Your task to perform on an android device: install app "Chime – Mobile Banking" Image 0: 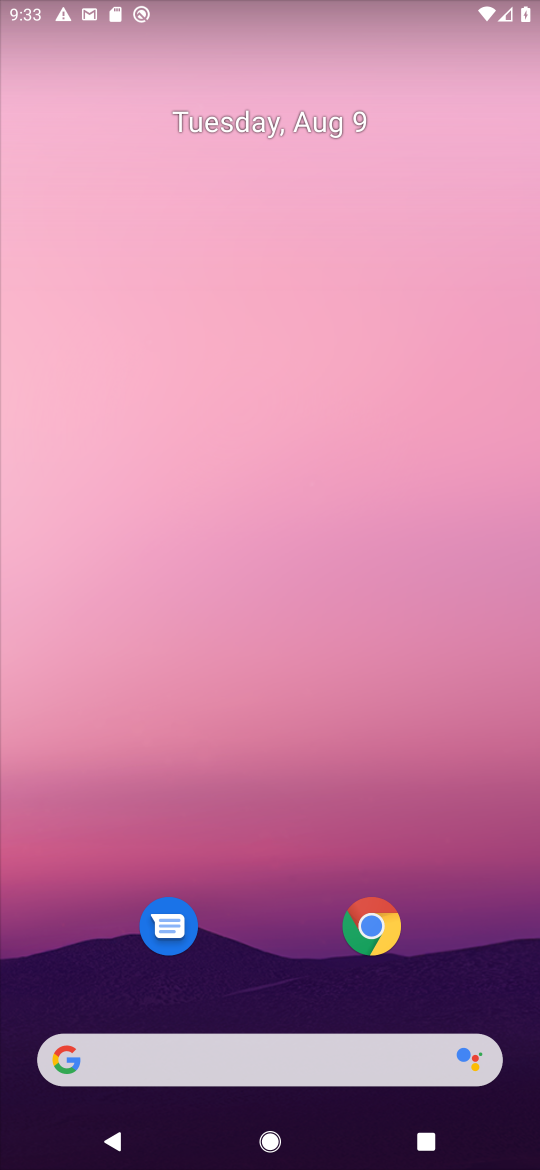
Step 0: drag from (294, 1012) to (282, 171)
Your task to perform on an android device: install app "Chime – Mobile Banking" Image 1: 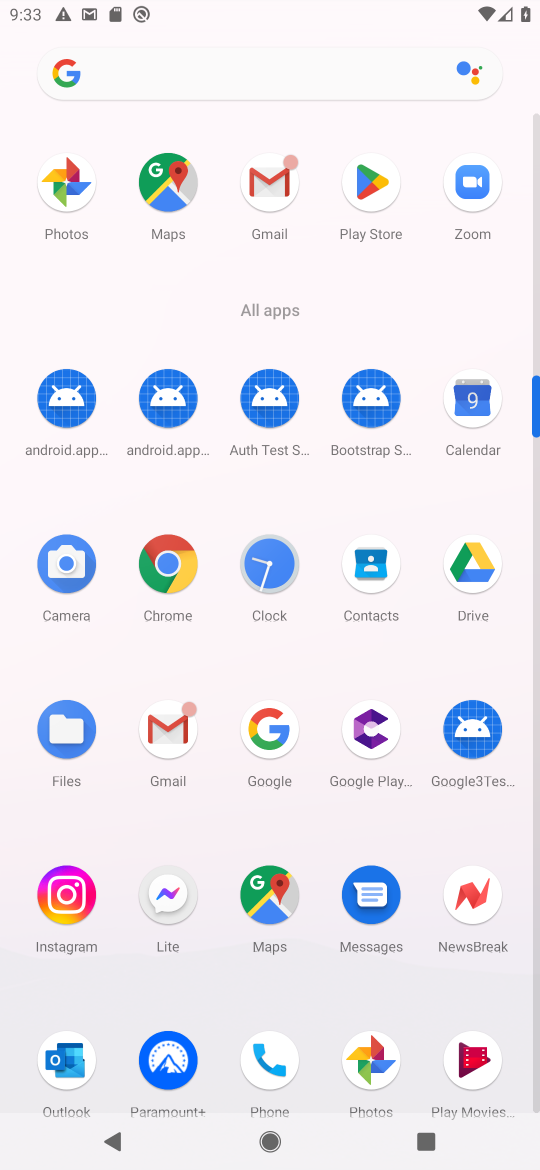
Step 1: click (359, 209)
Your task to perform on an android device: install app "Chime – Mobile Banking" Image 2: 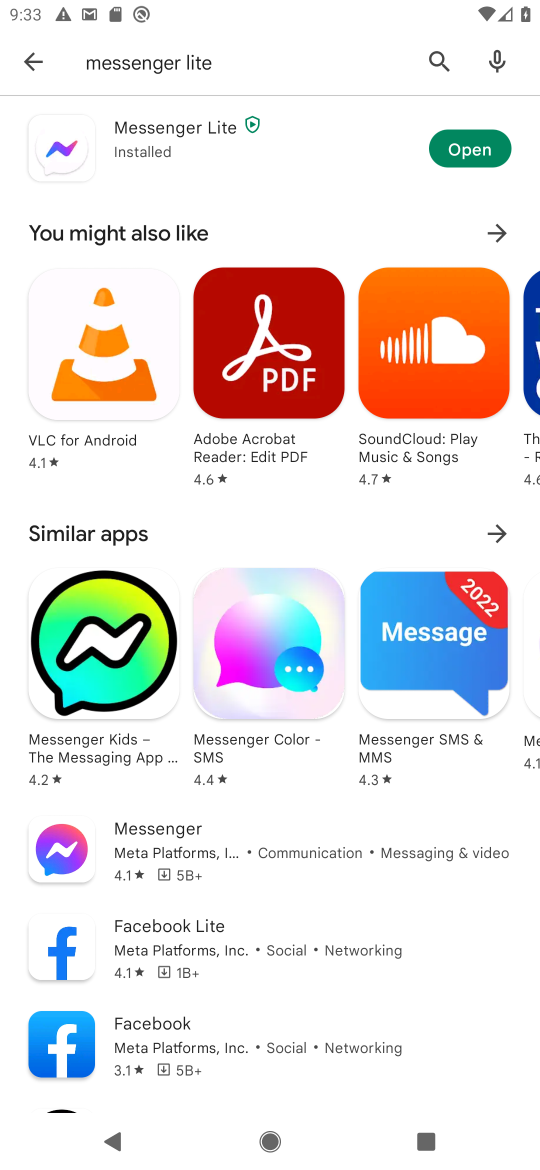
Step 2: click (167, 51)
Your task to perform on an android device: install app "Chime – Mobile Banking" Image 3: 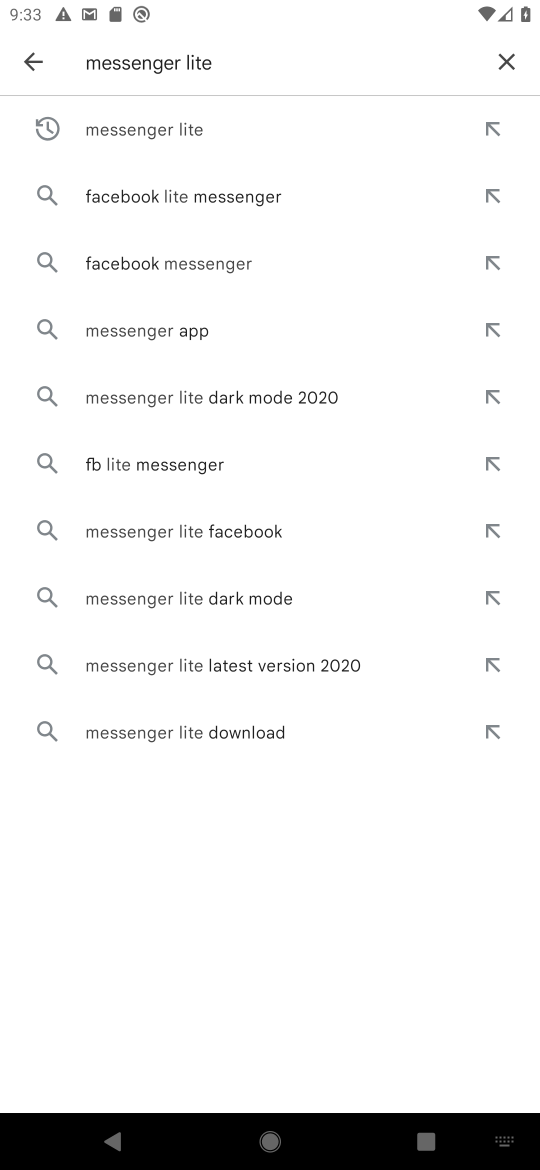
Step 3: click (515, 56)
Your task to perform on an android device: install app "Chime – Mobile Banking" Image 4: 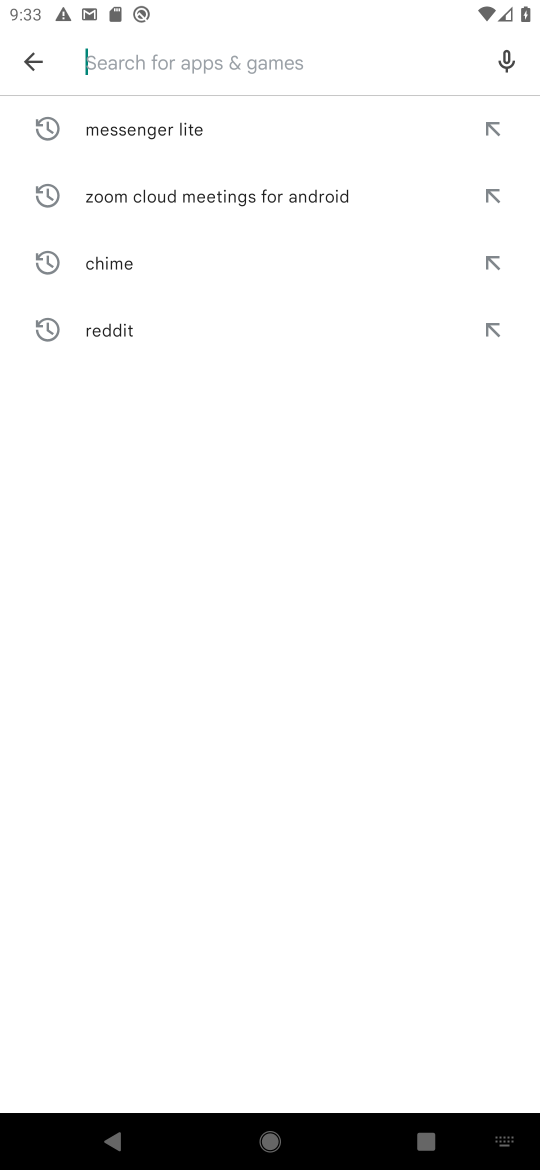
Step 4: type "Chime "
Your task to perform on an android device: install app "Chime – Mobile Banking" Image 5: 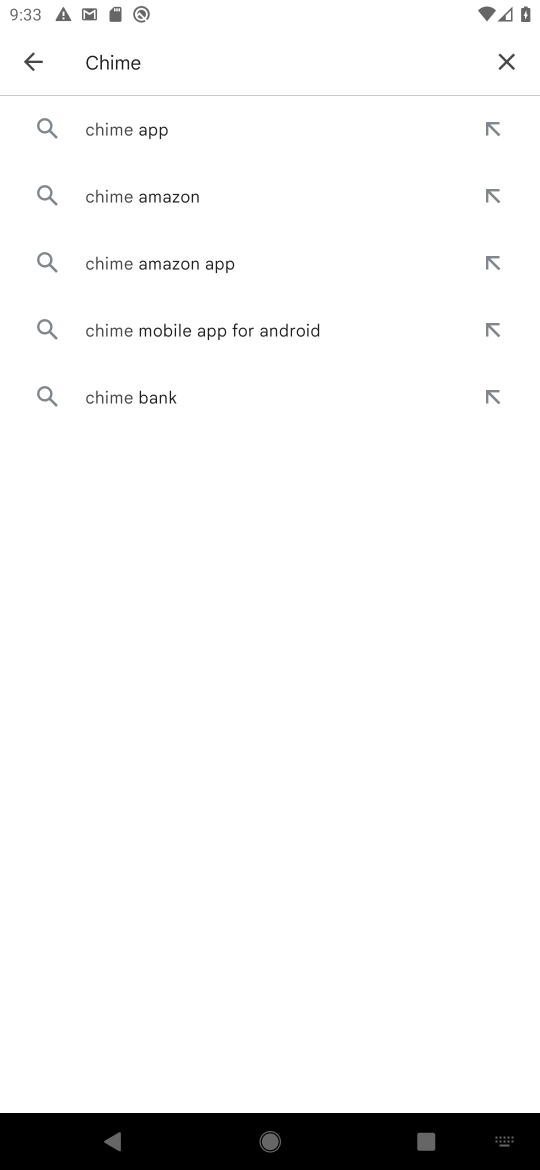
Step 5: click (110, 124)
Your task to perform on an android device: install app "Chime – Mobile Banking" Image 6: 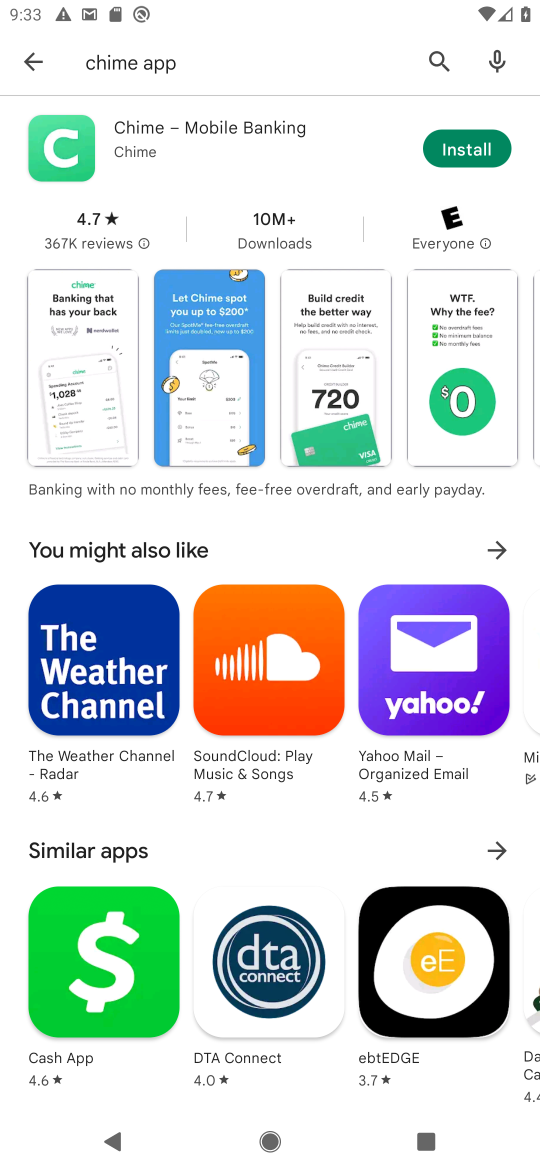
Step 6: click (477, 142)
Your task to perform on an android device: install app "Chime – Mobile Banking" Image 7: 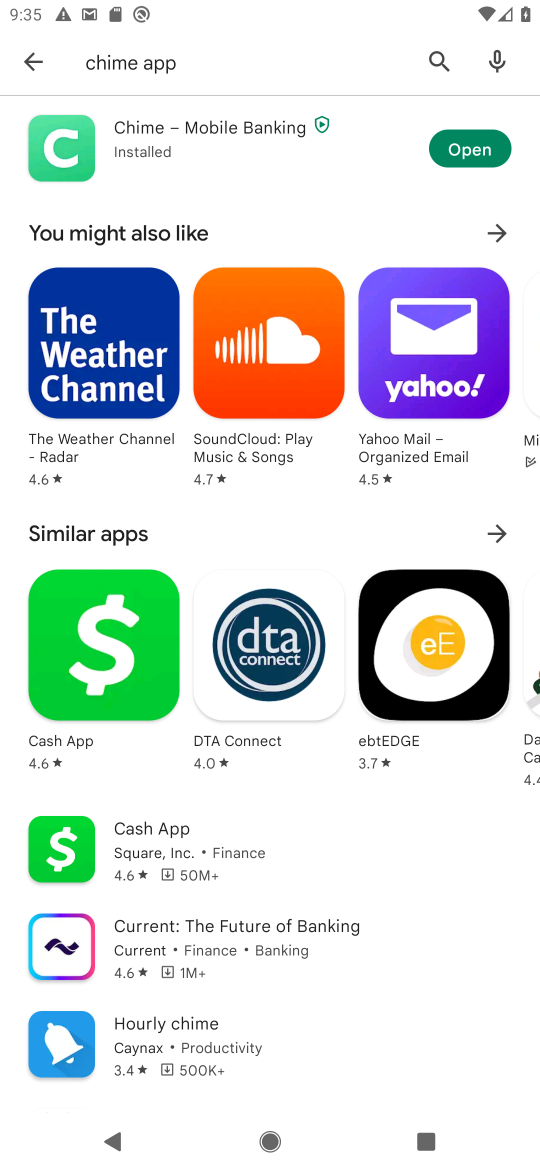
Step 7: task complete